Your task to perform on an android device: Open Google Chrome and click the shortcut for Amazon.com Image 0: 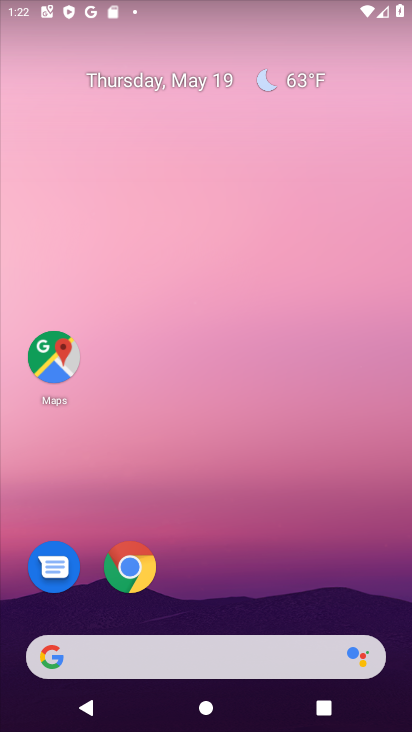
Step 0: drag from (345, 495) to (292, 5)
Your task to perform on an android device: Open Google Chrome and click the shortcut for Amazon.com Image 1: 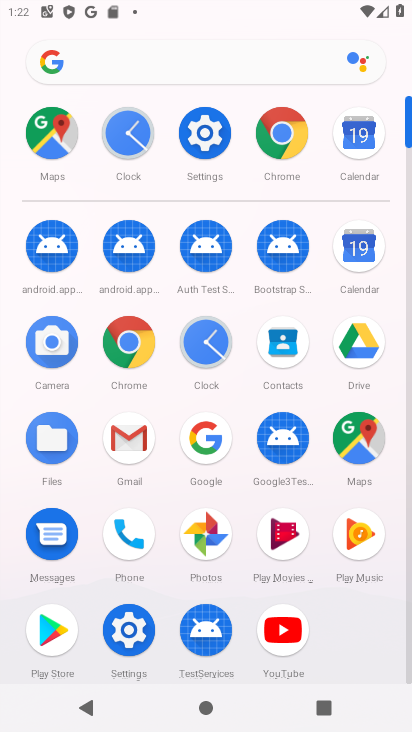
Step 1: click (280, 136)
Your task to perform on an android device: Open Google Chrome and click the shortcut for Amazon.com Image 2: 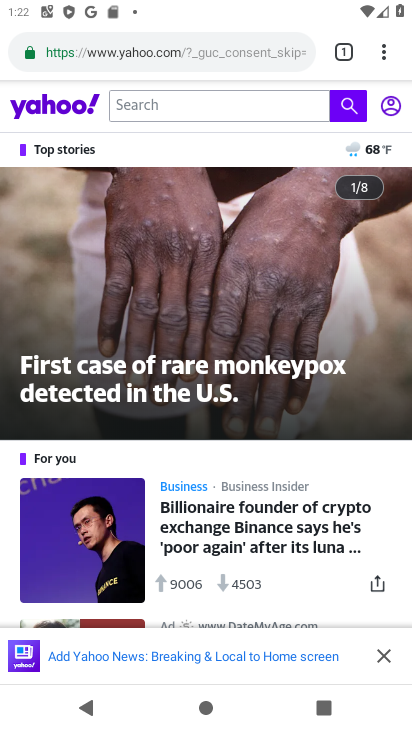
Step 2: click (272, 60)
Your task to perform on an android device: Open Google Chrome and click the shortcut for Amazon.com Image 3: 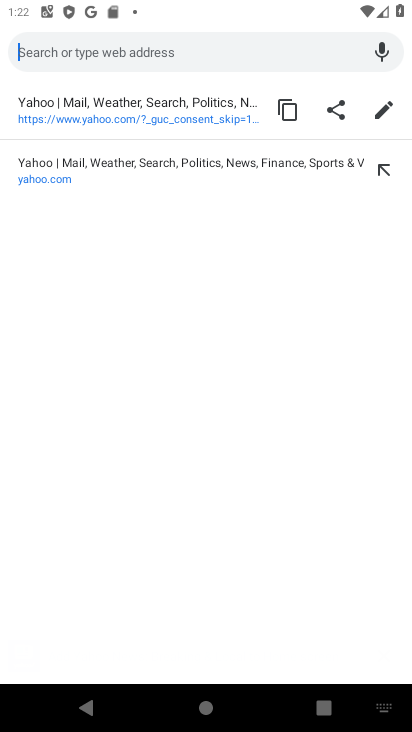
Step 3: type "amazon"
Your task to perform on an android device: Open Google Chrome and click the shortcut for Amazon.com Image 4: 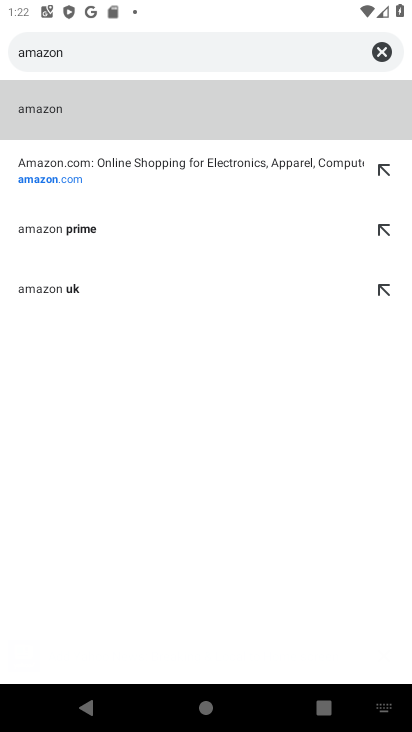
Step 4: click (61, 162)
Your task to perform on an android device: Open Google Chrome and click the shortcut for Amazon.com Image 5: 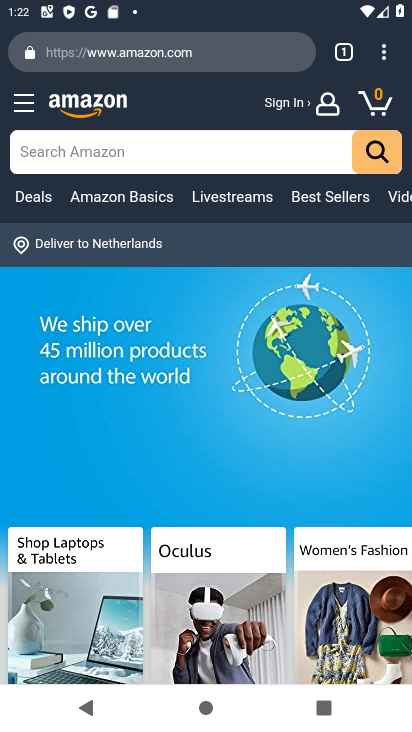
Step 5: drag from (380, 54) to (236, 526)
Your task to perform on an android device: Open Google Chrome and click the shortcut for Amazon.com Image 6: 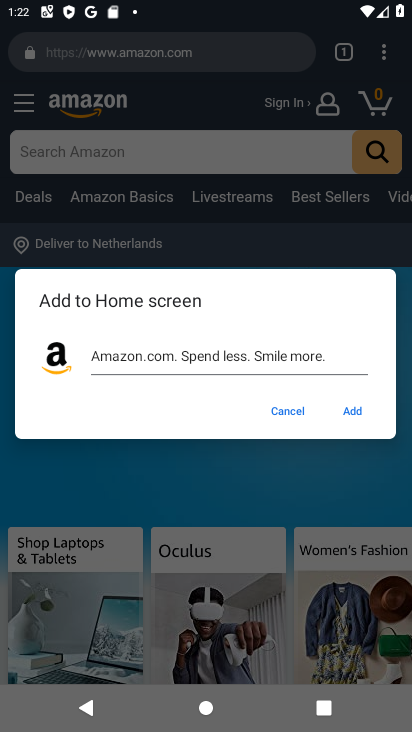
Step 6: click (349, 424)
Your task to perform on an android device: Open Google Chrome and click the shortcut for Amazon.com Image 7: 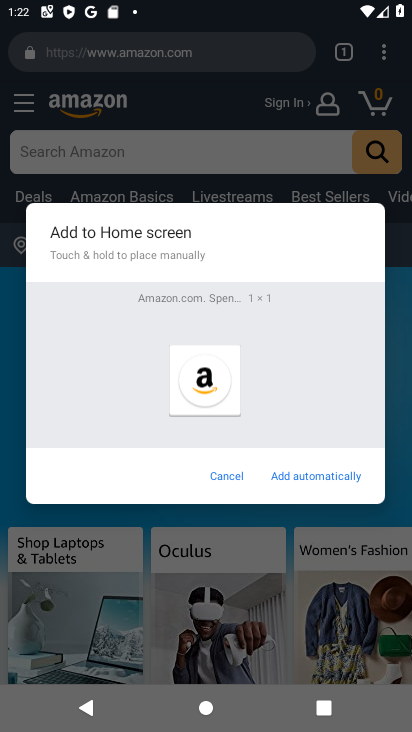
Step 7: click (318, 476)
Your task to perform on an android device: Open Google Chrome and click the shortcut for Amazon.com Image 8: 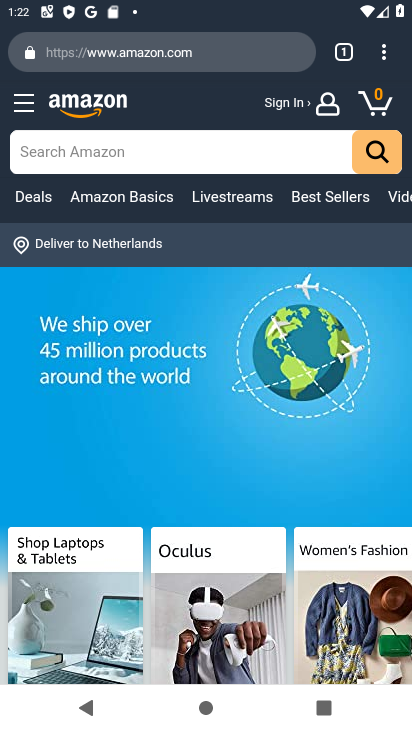
Step 8: task complete